Your task to perform on an android device: see creations saved in the google photos Image 0: 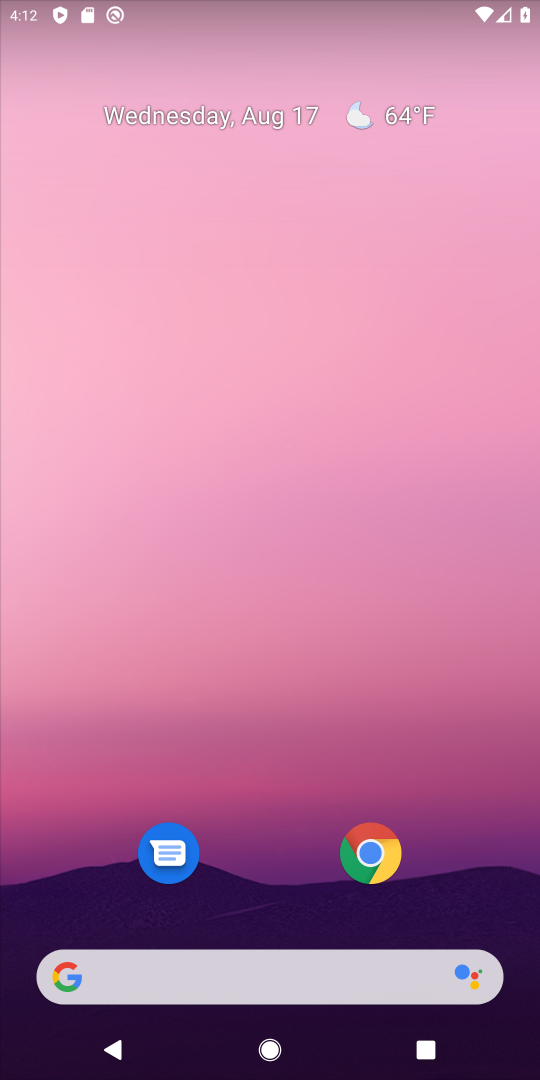
Step 0: drag from (508, 901) to (397, 153)
Your task to perform on an android device: see creations saved in the google photos Image 1: 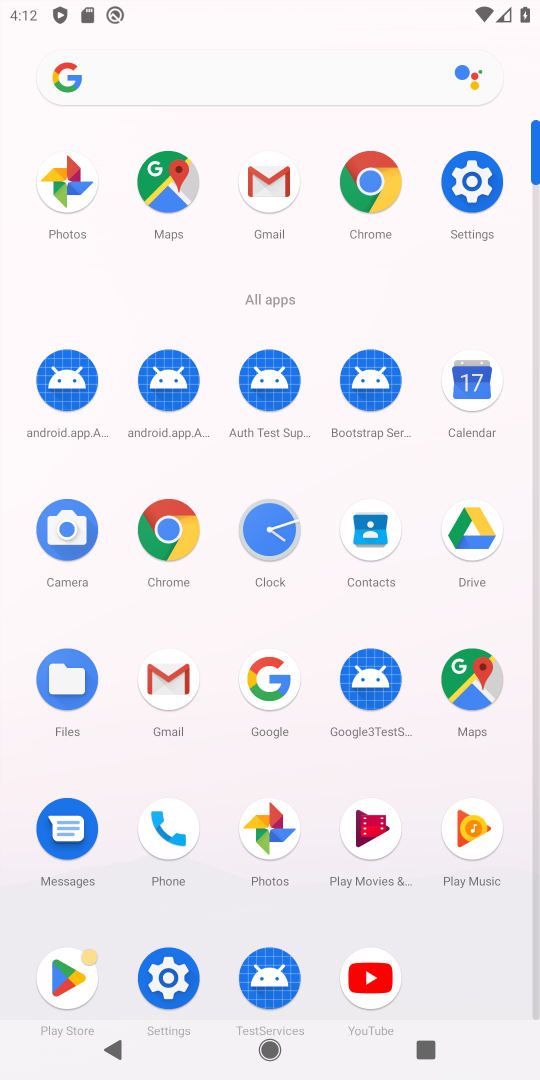
Step 1: click (271, 832)
Your task to perform on an android device: see creations saved in the google photos Image 2: 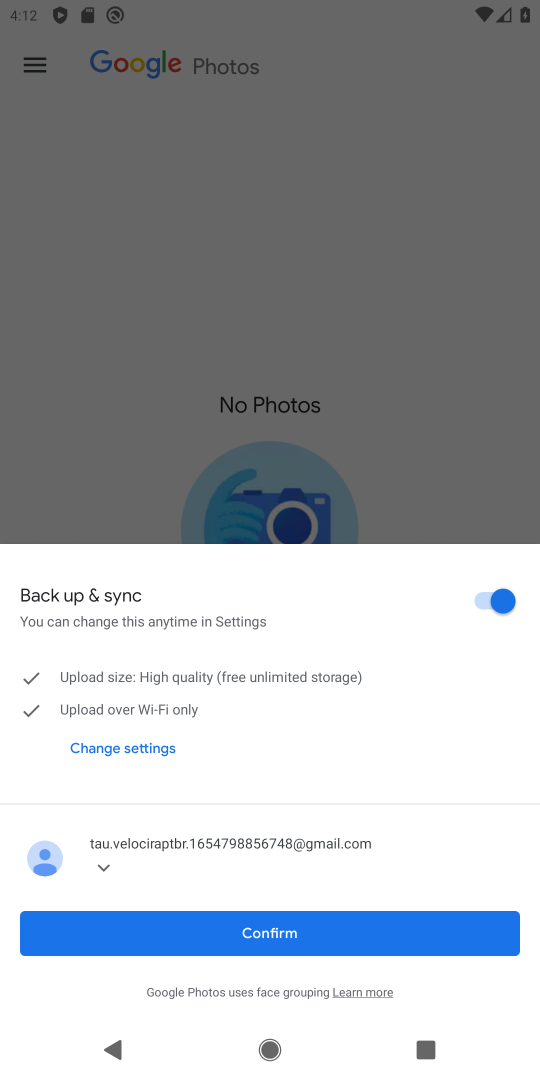
Step 2: click (270, 934)
Your task to perform on an android device: see creations saved in the google photos Image 3: 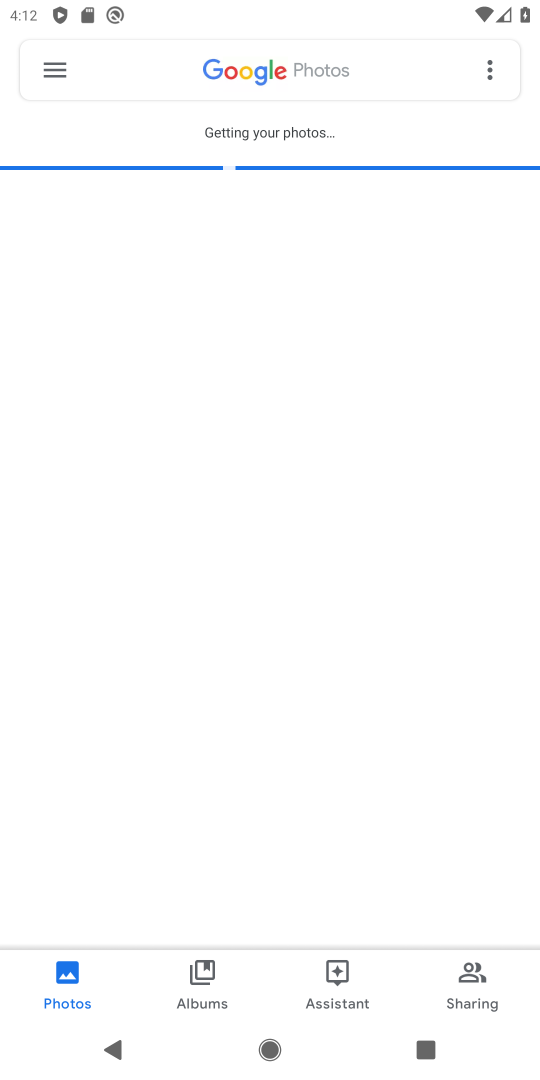
Step 3: task complete